Your task to perform on an android device: open app "Messages" (install if not already installed) Image 0: 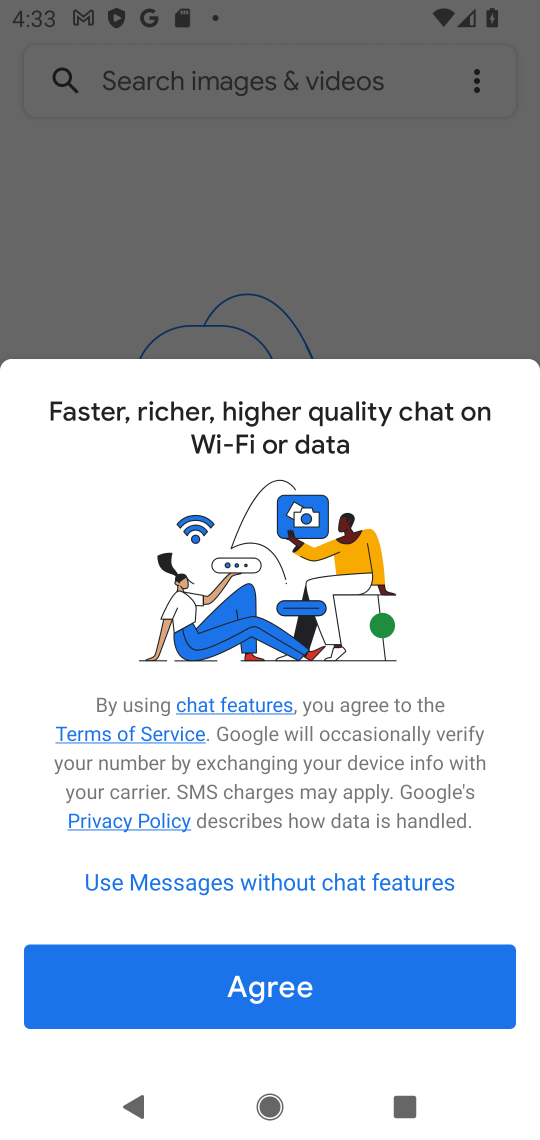
Step 0: press home button
Your task to perform on an android device: open app "Messages" (install if not already installed) Image 1: 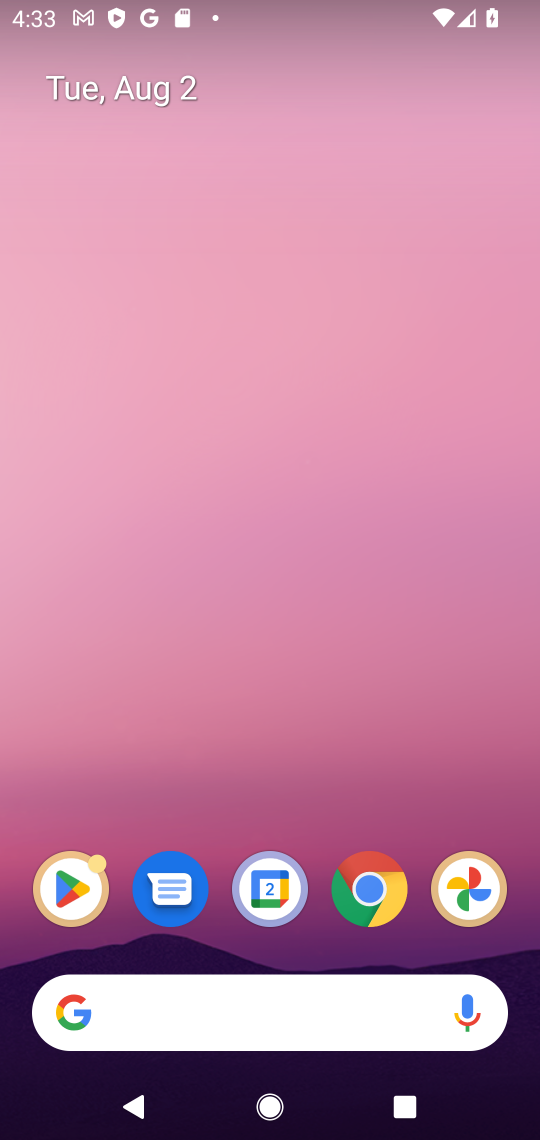
Step 1: click (157, 887)
Your task to perform on an android device: open app "Messages" (install if not already installed) Image 2: 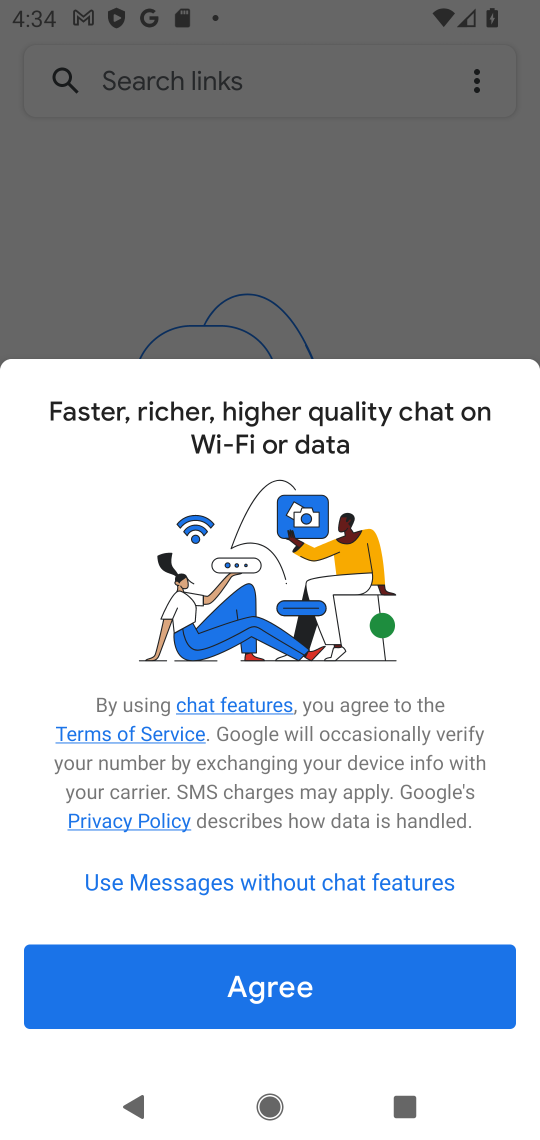
Step 2: task complete